Your task to perform on an android device: Search for Mexican restaurants on Maps Image 0: 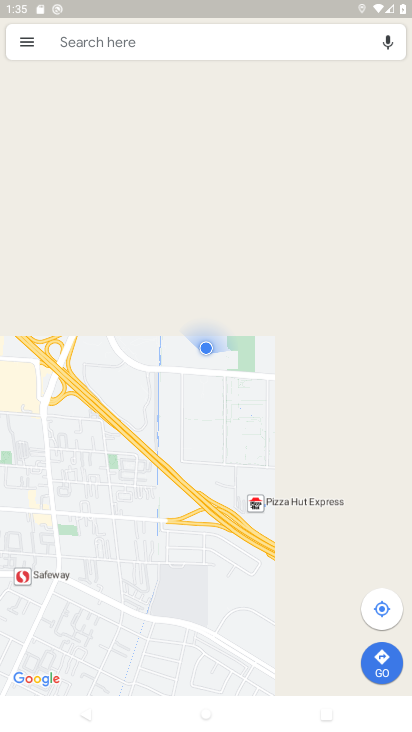
Step 0: click (113, 39)
Your task to perform on an android device: Search for Mexican restaurants on Maps Image 1: 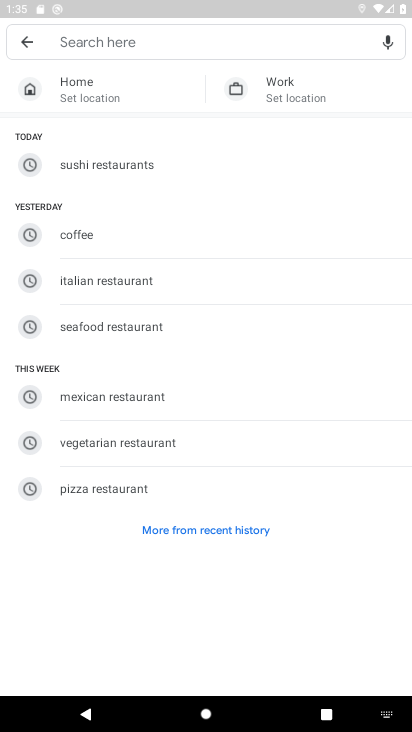
Step 1: click (180, 402)
Your task to perform on an android device: Search for Mexican restaurants on Maps Image 2: 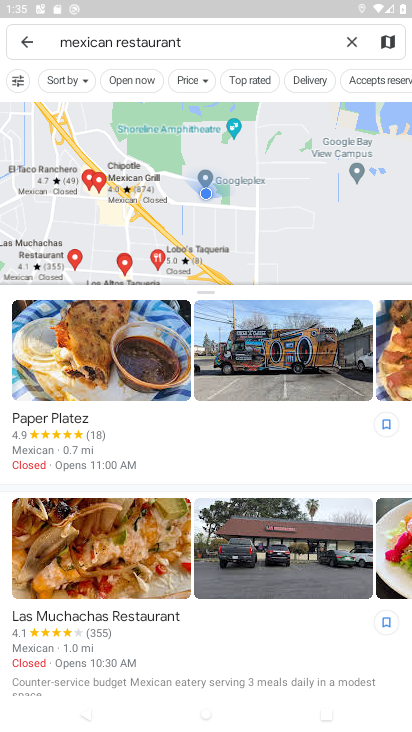
Step 2: task complete